Your task to perform on an android device: find photos in the google photos app Image 0: 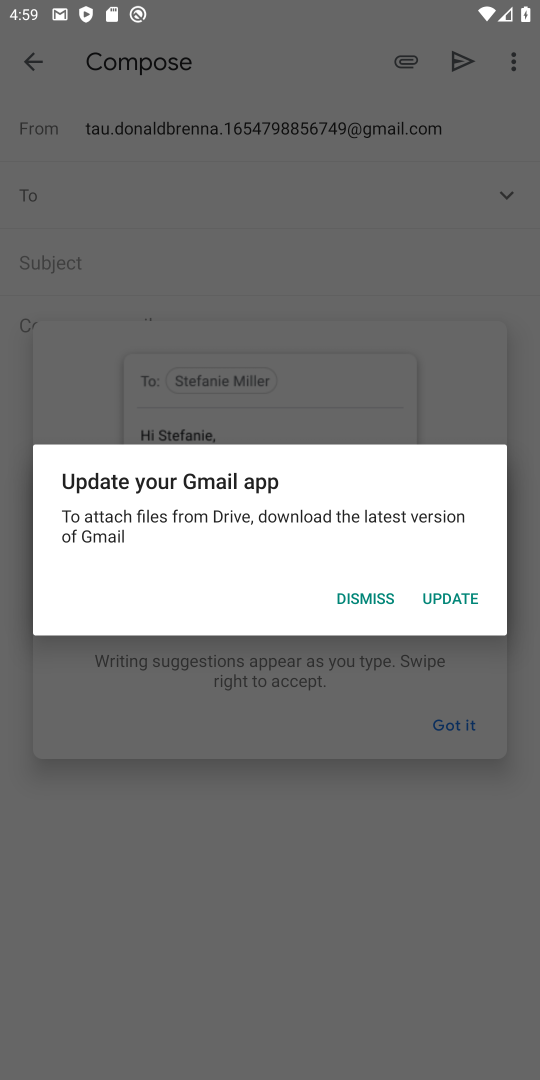
Step 0: press home button
Your task to perform on an android device: find photos in the google photos app Image 1: 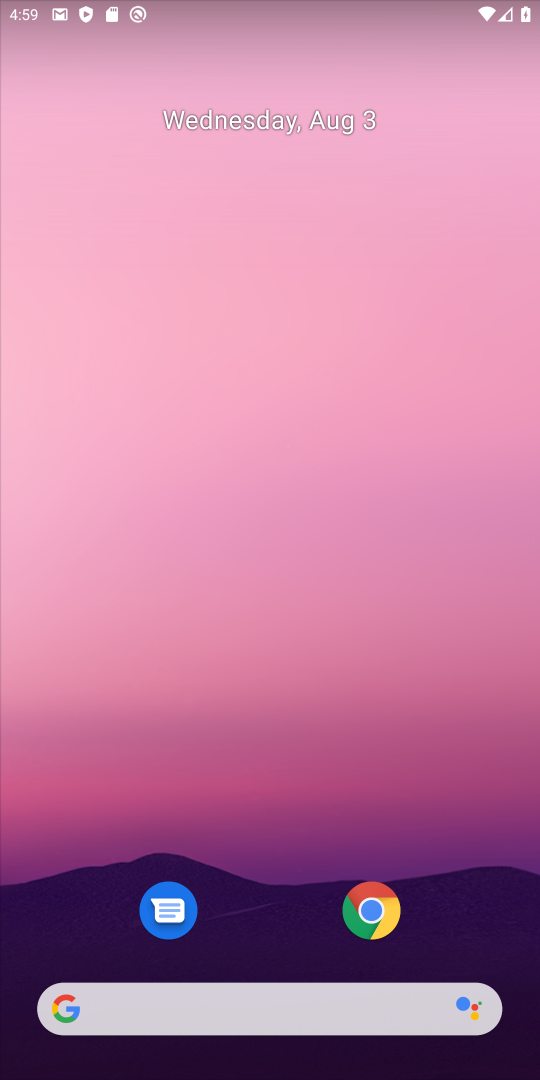
Step 1: drag from (464, 876) to (141, 1075)
Your task to perform on an android device: find photos in the google photos app Image 2: 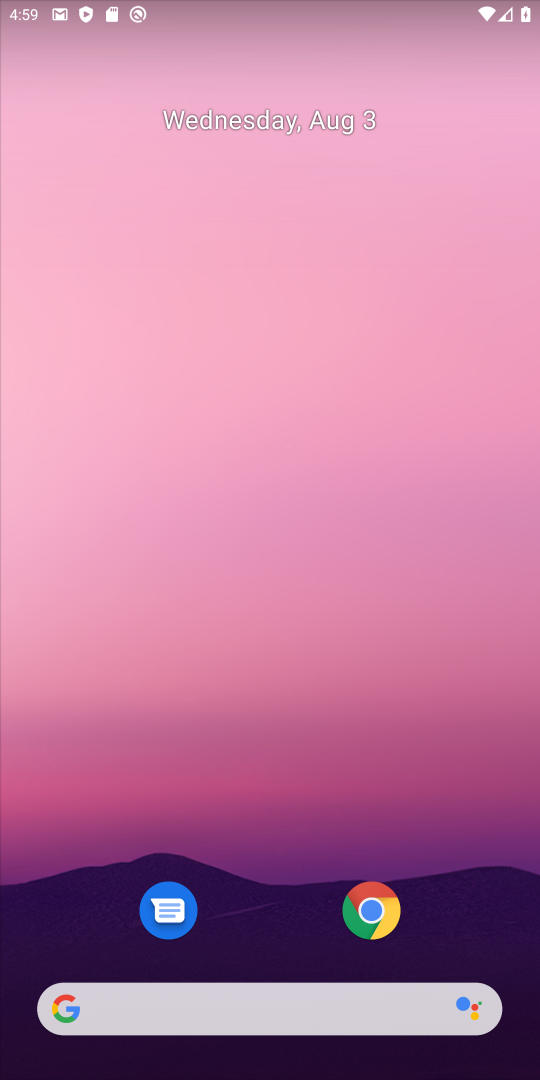
Step 2: drag from (242, 913) to (299, 90)
Your task to perform on an android device: find photos in the google photos app Image 3: 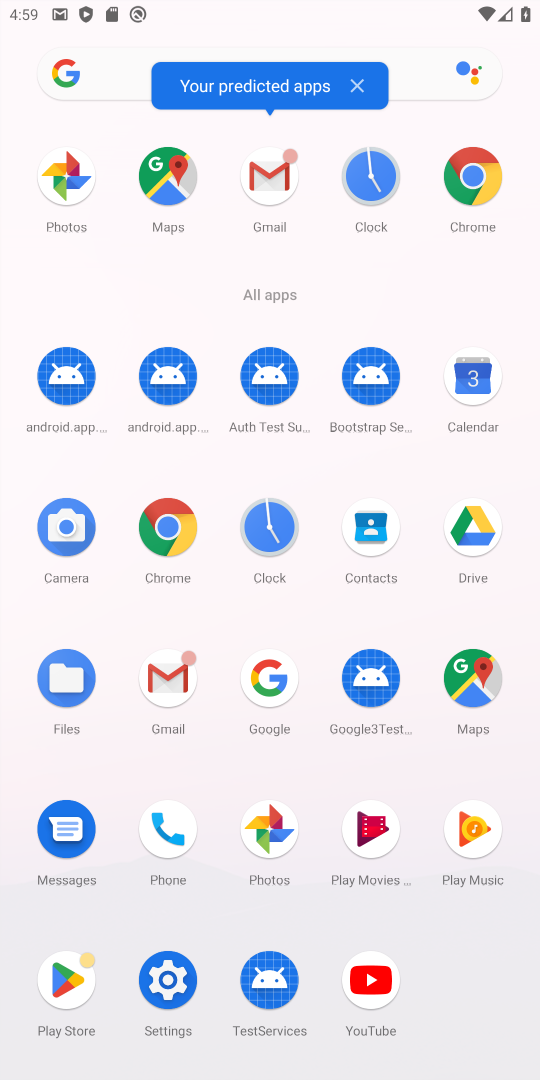
Step 3: click (265, 817)
Your task to perform on an android device: find photos in the google photos app Image 4: 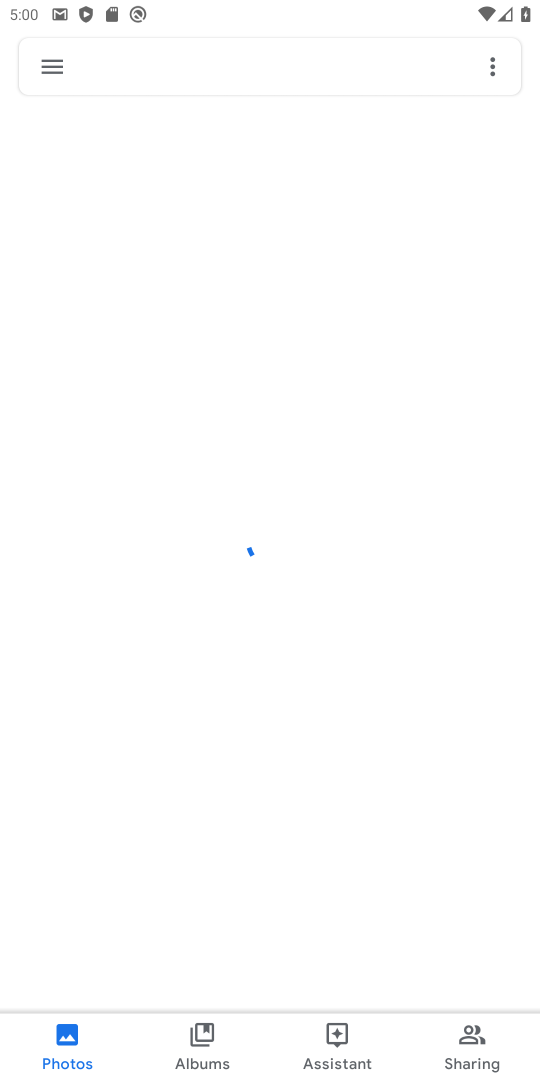
Step 4: click (70, 1038)
Your task to perform on an android device: find photos in the google photos app Image 5: 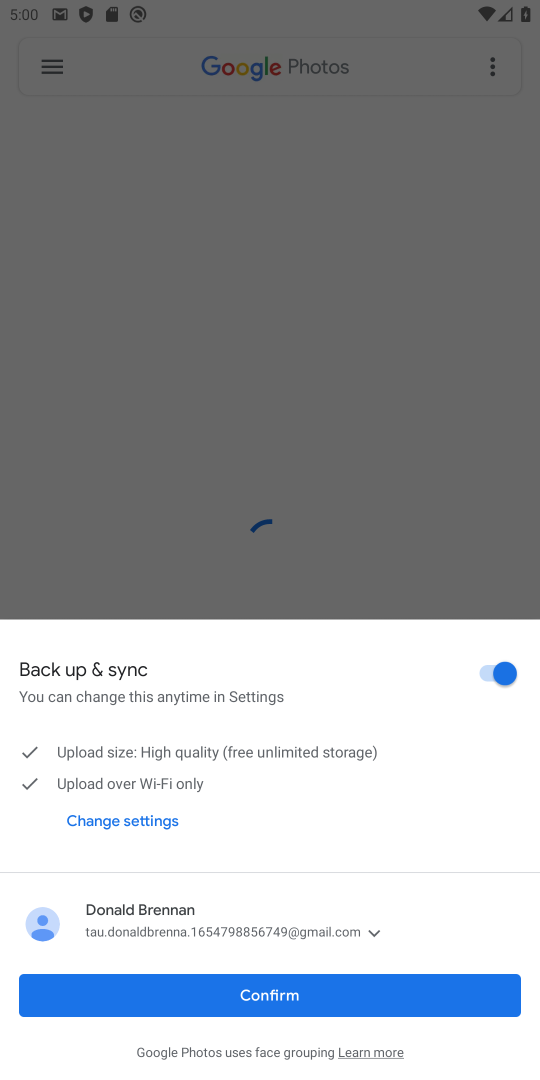
Step 5: click (208, 986)
Your task to perform on an android device: find photos in the google photos app Image 6: 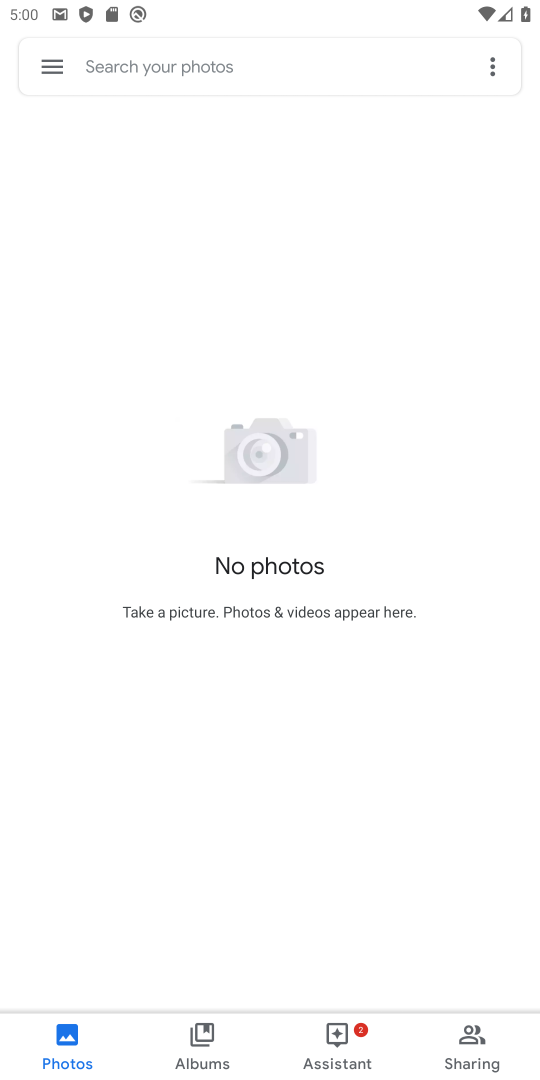
Step 6: task complete